Your task to perform on an android device: turn on sleep mode Image 0: 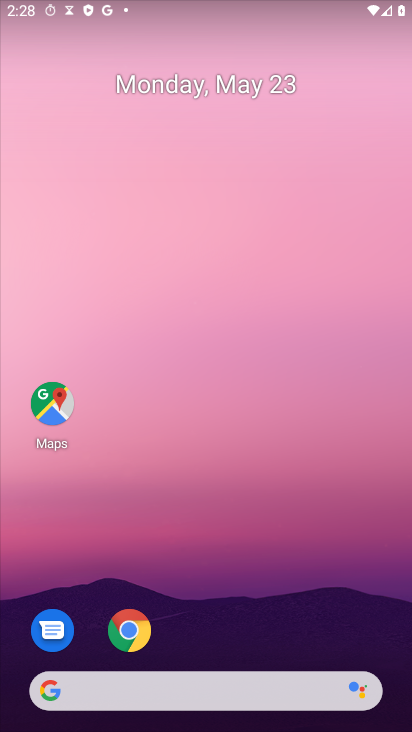
Step 0: drag from (297, 534) to (334, 2)
Your task to perform on an android device: turn on sleep mode Image 1: 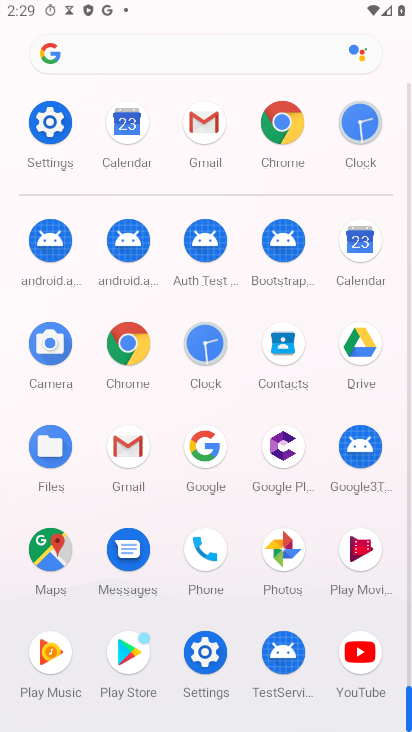
Step 1: click (48, 147)
Your task to perform on an android device: turn on sleep mode Image 2: 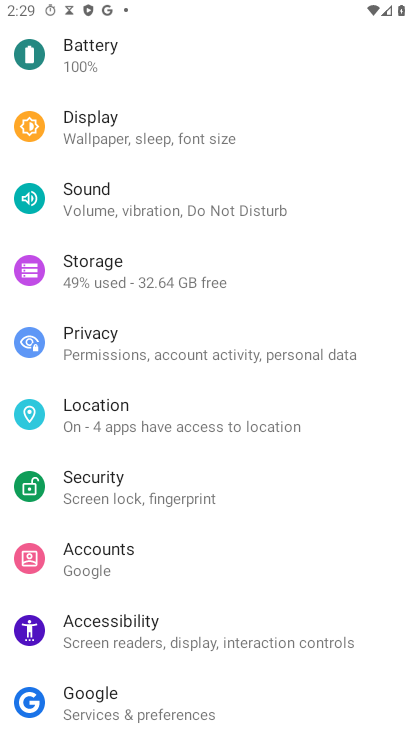
Step 2: click (103, 135)
Your task to perform on an android device: turn on sleep mode Image 3: 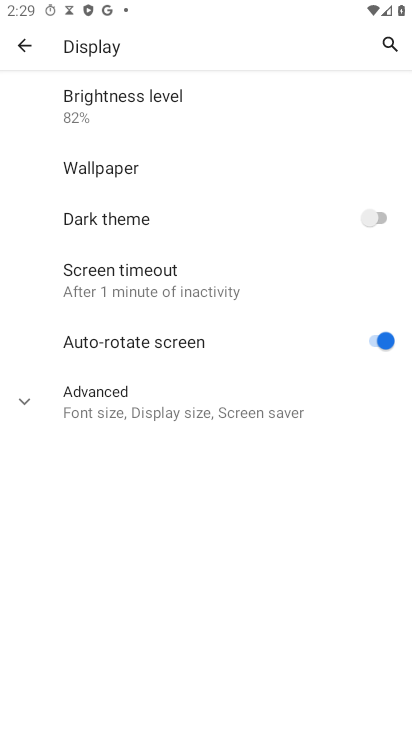
Step 3: click (145, 290)
Your task to perform on an android device: turn on sleep mode Image 4: 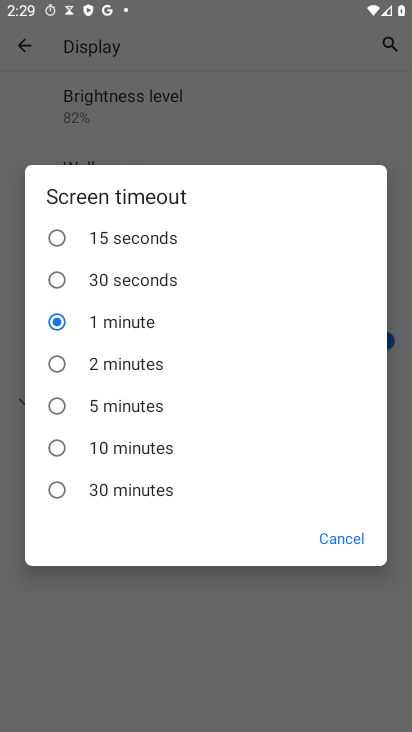
Step 4: task complete